Your task to perform on an android device: change the clock display to analog Image 0: 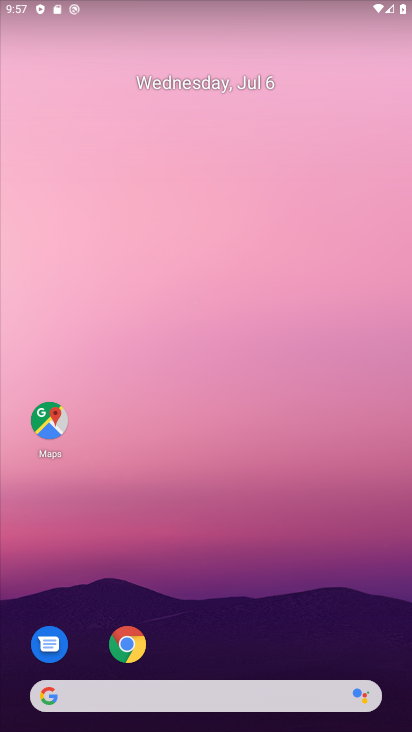
Step 0: click (168, 222)
Your task to perform on an android device: change the clock display to analog Image 1: 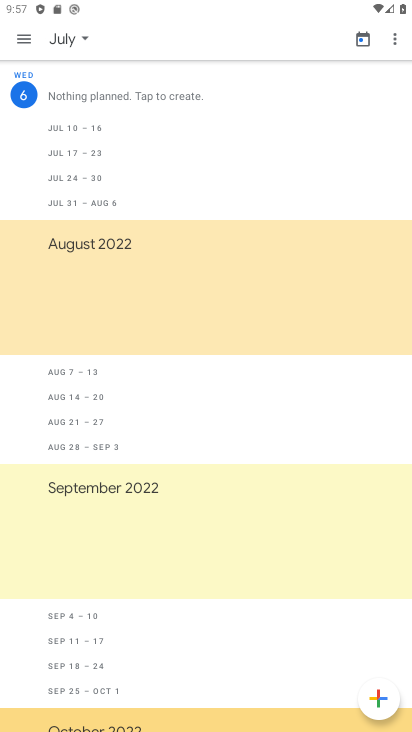
Step 1: press back button
Your task to perform on an android device: change the clock display to analog Image 2: 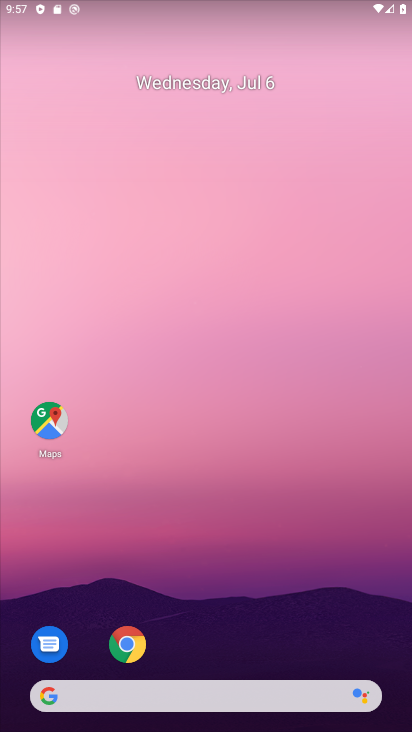
Step 2: drag from (266, 690) to (185, 125)
Your task to perform on an android device: change the clock display to analog Image 3: 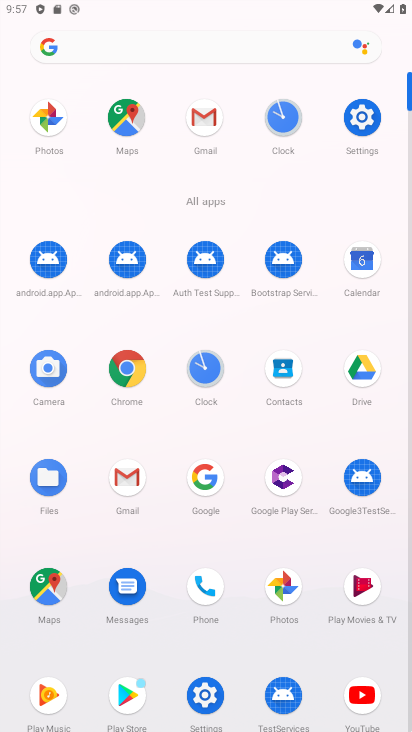
Step 3: click (198, 373)
Your task to perform on an android device: change the clock display to analog Image 4: 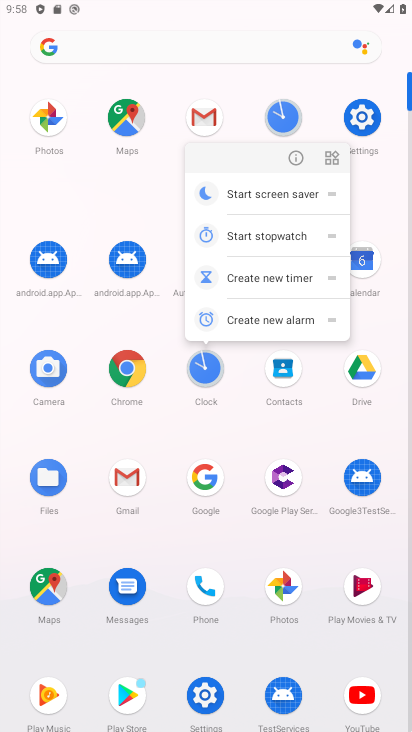
Step 4: click (188, 379)
Your task to perform on an android device: change the clock display to analog Image 5: 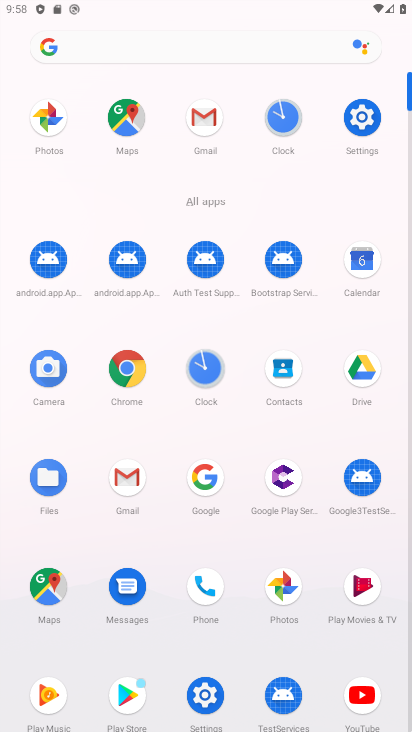
Step 5: click (188, 378)
Your task to perform on an android device: change the clock display to analog Image 6: 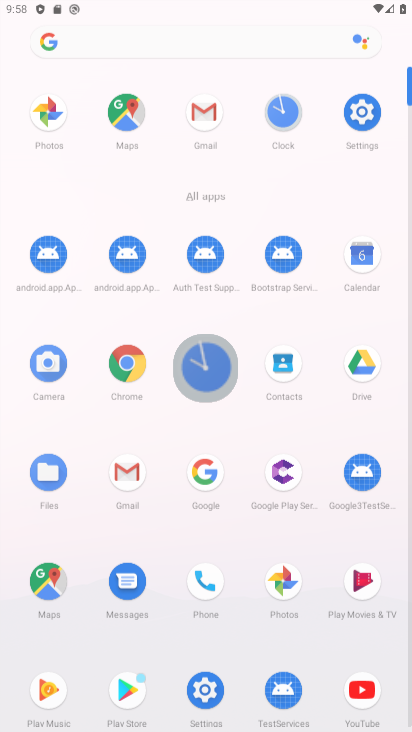
Step 6: click (197, 370)
Your task to perform on an android device: change the clock display to analog Image 7: 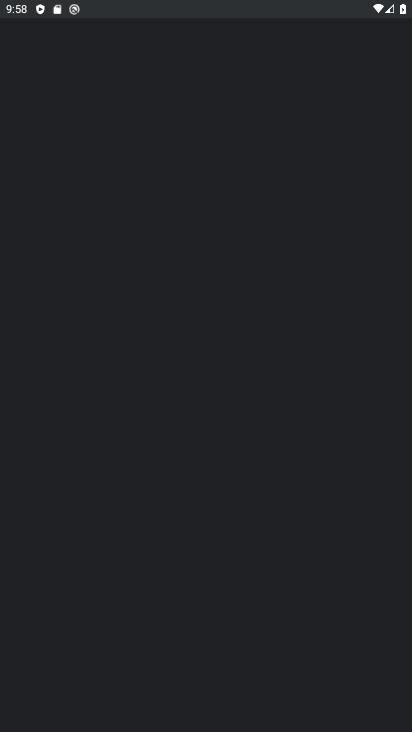
Step 7: click (197, 370)
Your task to perform on an android device: change the clock display to analog Image 8: 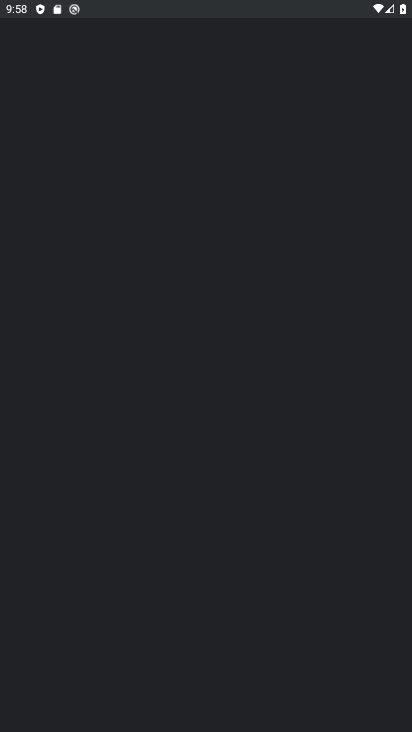
Step 8: click (197, 370)
Your task to perform on an android device: change the clock display to analog Image 9: 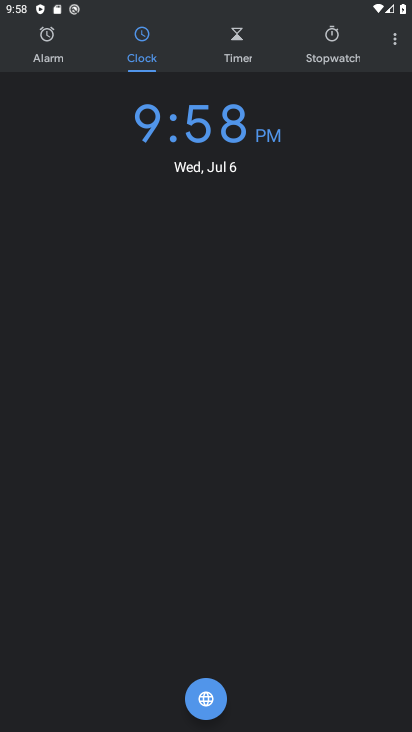
Step 9: click (392, 33)
Your task to perform on an android device: change the clock display to analog Image 10: 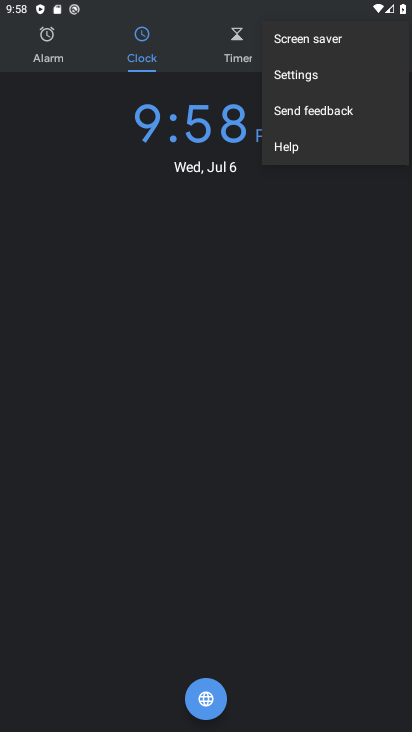
Step 10: click (283, 62)
Your task to perform on an android device: change the clock display to analog Image 11: 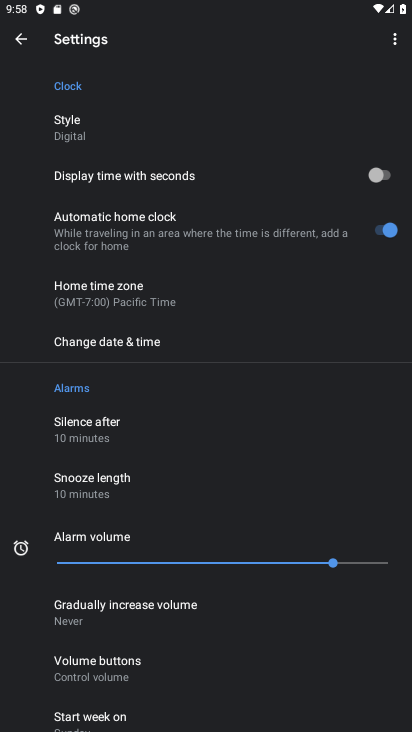
Step 11: click (84, 134)
Your task to perform on an android device: change the clock display to analog Image 12: 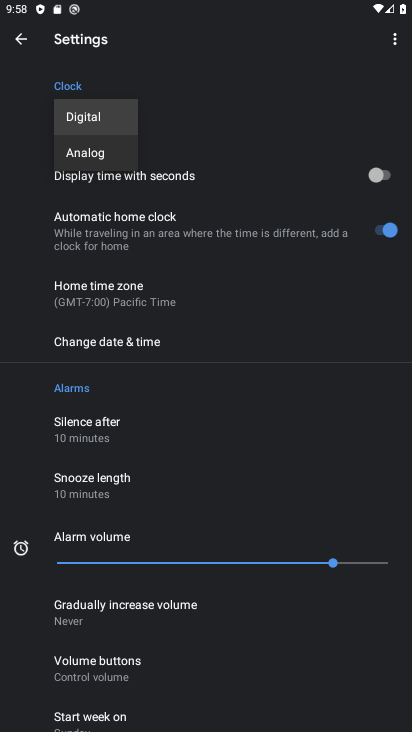
Step 12: click (90, 149)
Your task to perform on an android device: change the clock display to analog Image 13: 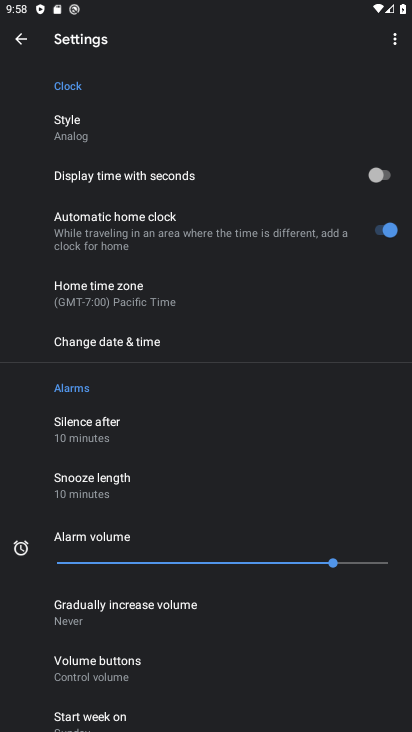
Step 13: task complete